Your task to perform on an android device: Open Amazon Image 0: 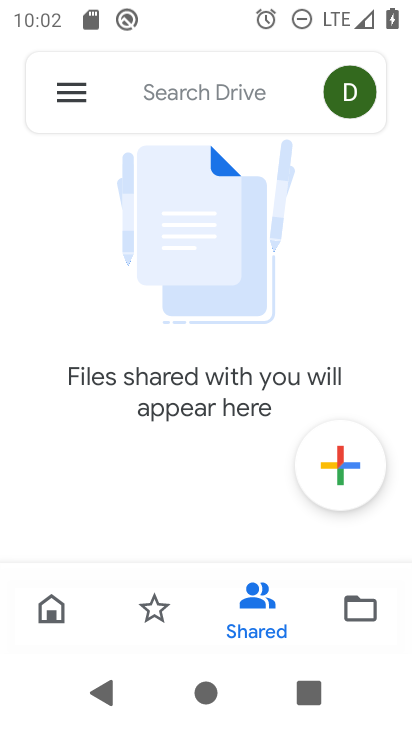
Step 0: press home button
Your task to perform on an android device: Open Amazon Image 1: 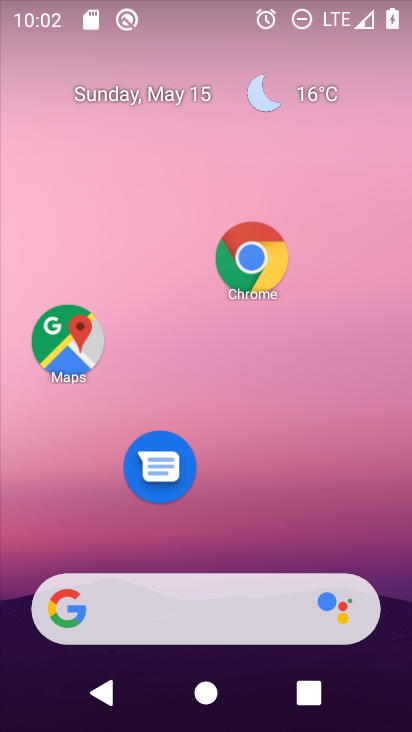
Step 1: click (249, 257)
Your task to perform on an android device: Open Amazon Image 2: 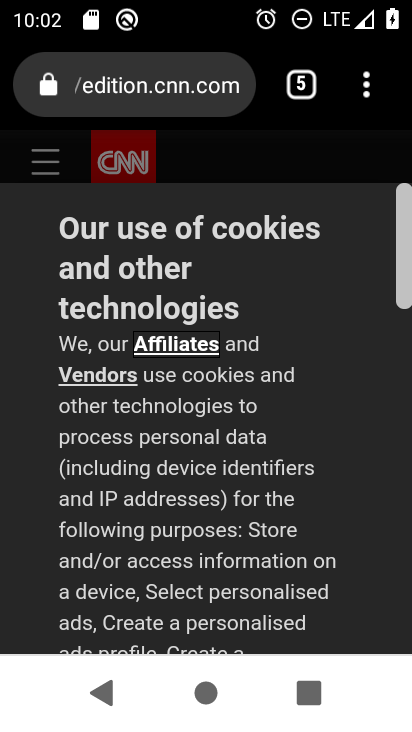
Step 2: click (307, 98)
Your task to perform on an android device: Open Amazon Image 3: 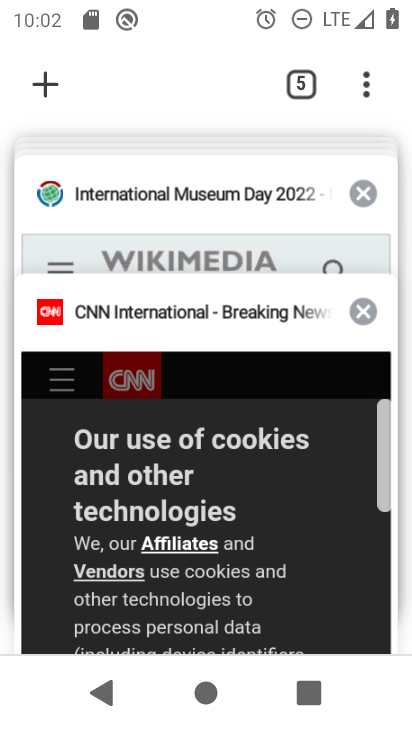
Step 3: click (65, 105)
Your task to perform on an android device: Open Amazon Image 4: 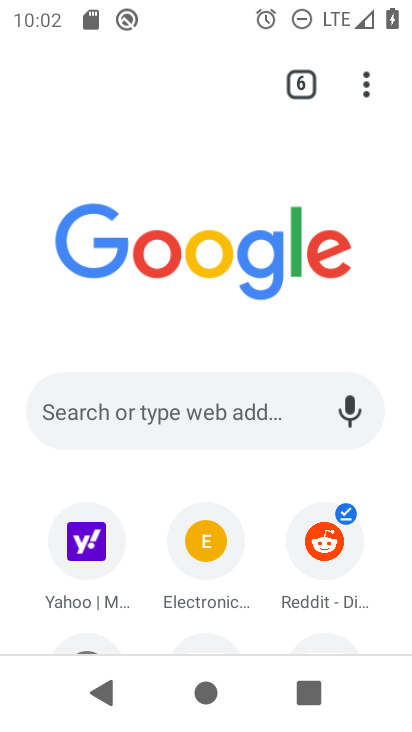
Step 4: drag from (245, 593) to (256, 264)
Your task to perform on an android device: Open Amazon Image 5: 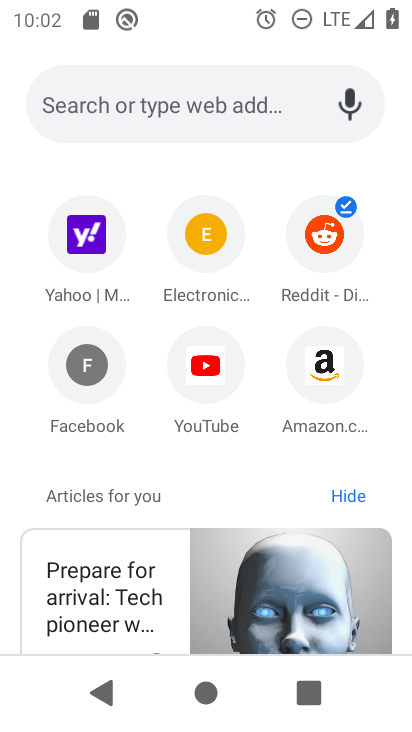
Step 5: click (313, 379)
Your task to perform on an android device: Open Amazon Image 6: 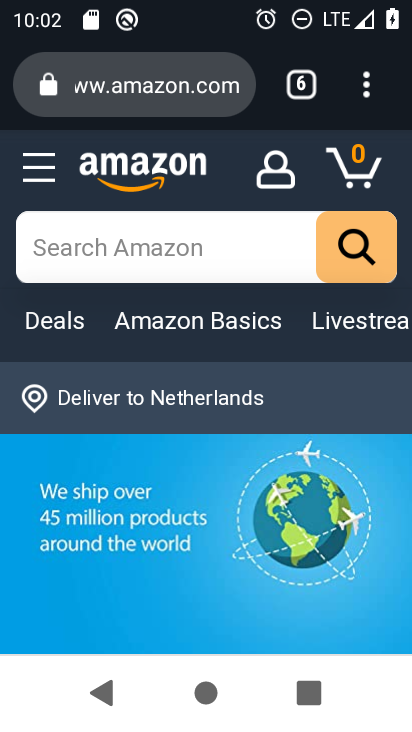
Step 6: task complete